Your task to perform on an android device: change notification settings in the gmail app Image 0: 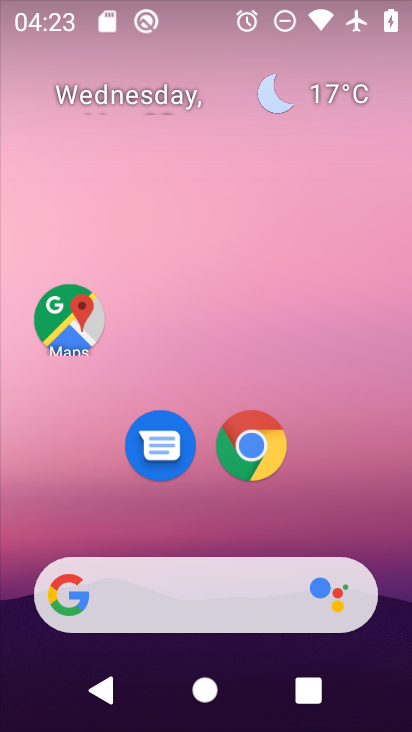
Step 0: drag from (261, 584) to (120, 0)
Your task to perform on an android device: change notification settings in the gmail app Image 1: 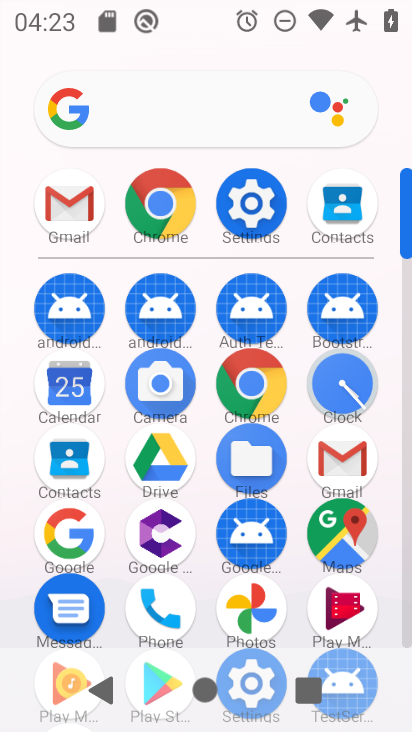
Step 1: click (345, 469)
Your task to perform on an android device: change notification settings in the gmail app Image 2: 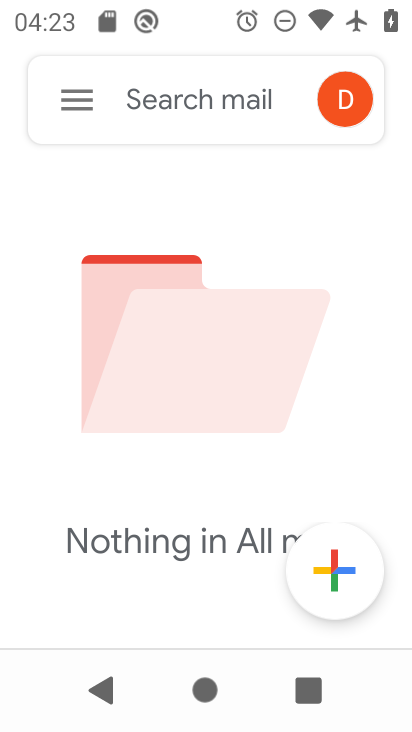
Step 2: click (72, 117)
Your task to perform on an android device: change notification settings in the gmail app Image 3: 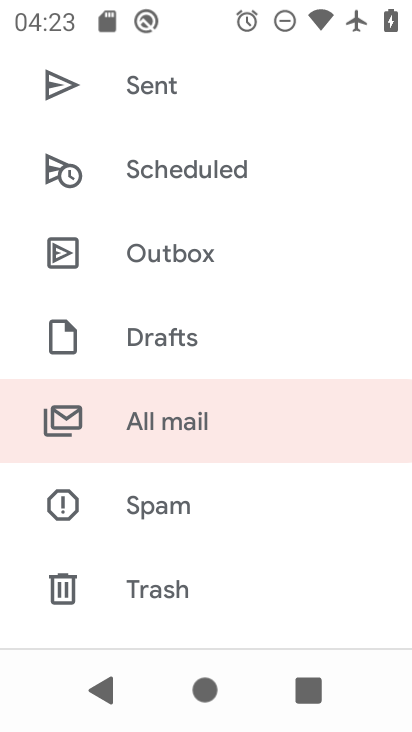
Step 3: drag from (162, 539) to (47, 50)
Your task to perform on an android device: change notification settings in the gmail app Image 4: 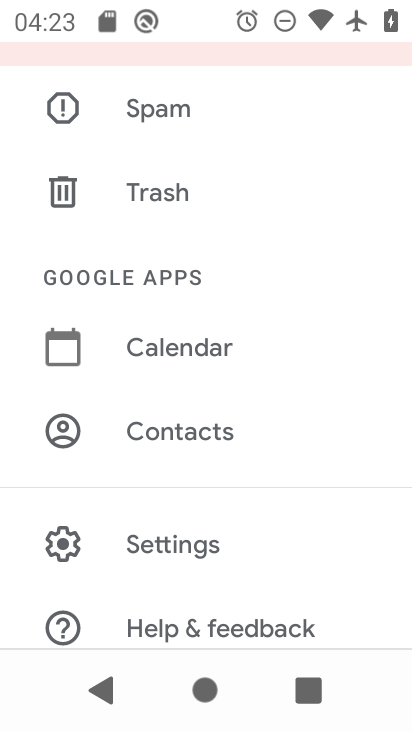
Step 4: click (188, 498)
Your task to perform on an android device: change notification settings in the gmail app Image 5: 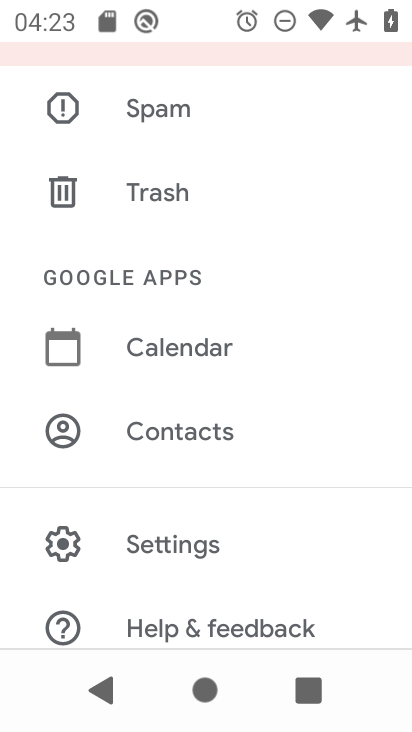
Step 5: click (184, 530)
Your task to perform on an android device: change notification settings in the gmail app Image 6: 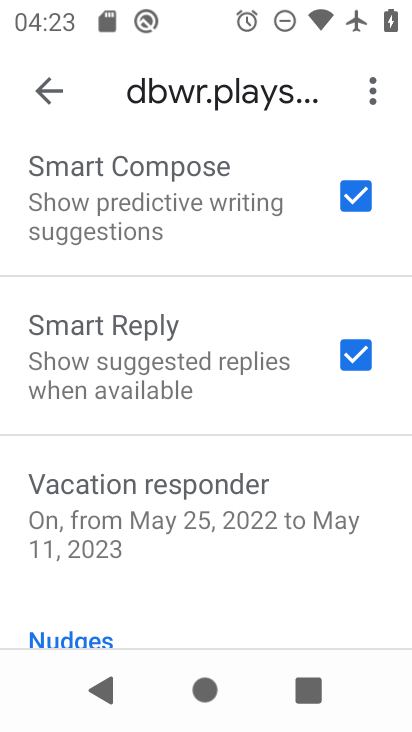
Step 6: drag from (234, 553) to (195, 159)
Your task to perform on an android device: change notification settings in the gmail app Image 7: 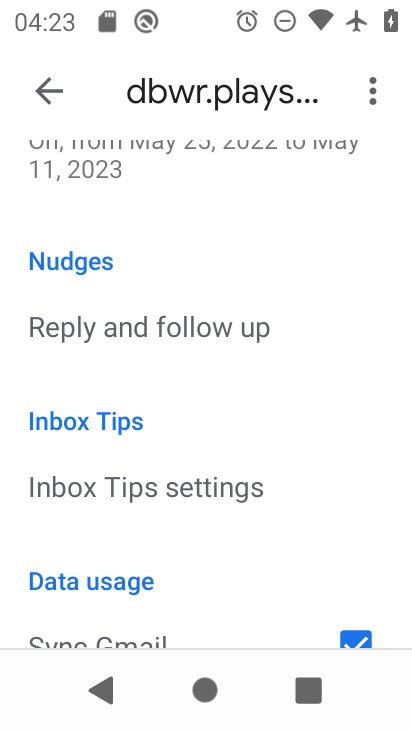
Step 7: drag from (166, 162) to (138, 614)
Your task to perform on an android device: change notification settings in the gmail app Image 8: 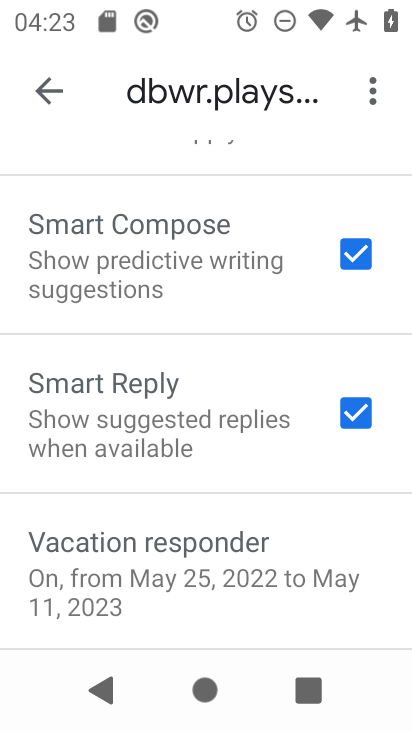
Step 8: drag from (145, 162) to (36, 717)
Your task to perform on an android device: change notification settings in the gmail app Image 9: 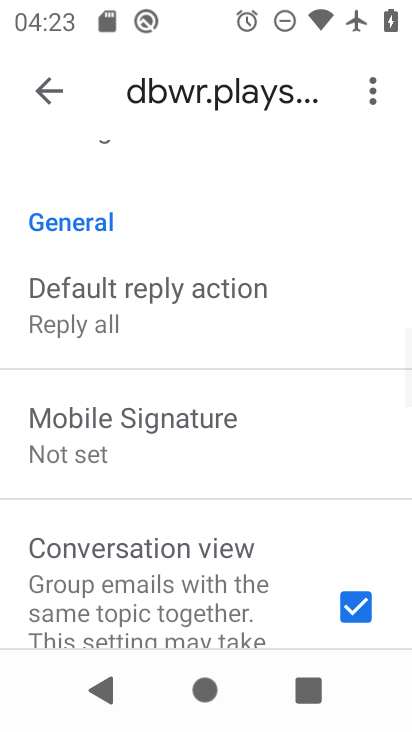
Step 9: drag from (245, 160) to (196, 515)
Your task to perform on an android device: change notification settings in the gmail app Image 10: 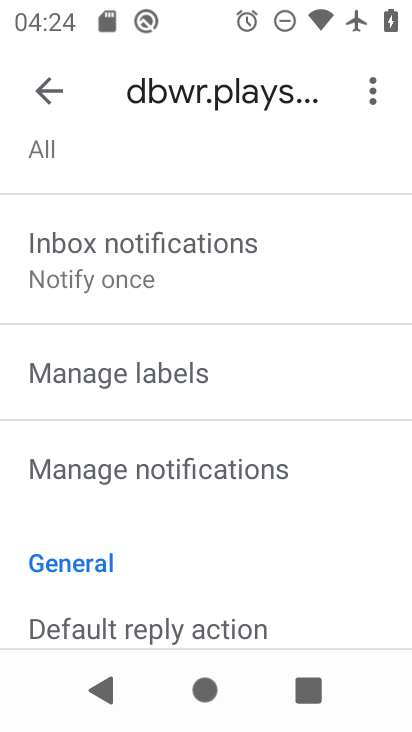
Step 10: click (123, 467)
Your task to perform on an android device: change notification settings in the gmail app Image 11: 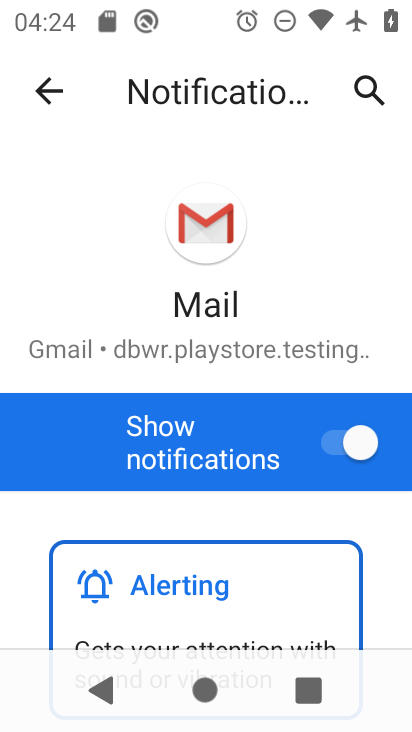
Step 11: click (342, 449)
Your task to perform on an android device: change notification settings in the gmail app Image 12: 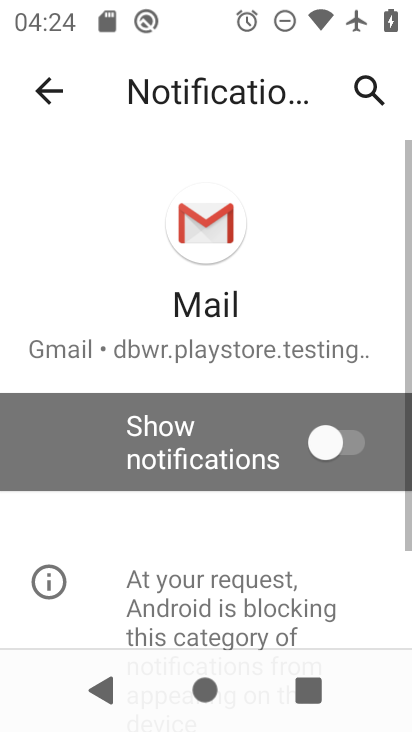
Step 12: task complete